Your task to perform on an android device: Is it going to rain tomorrow? Image 0: 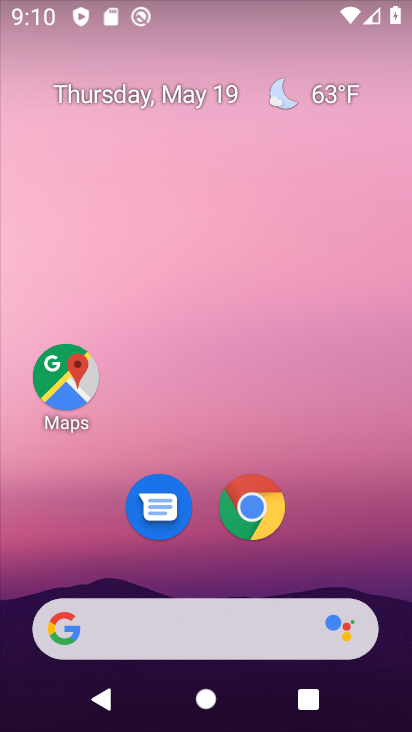
Step 0: click (243, 510)
Your task to perform on an android device: Is it going to rain tomorrow? Image 1: 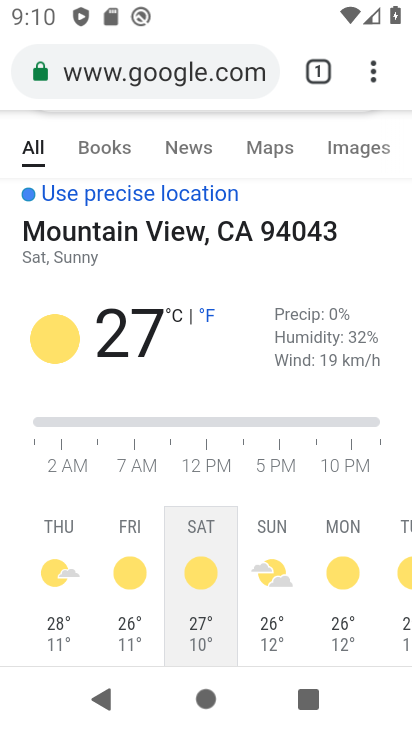
Step 1: click (250, 93)
Your task to perform on an android device: Is it going to rain tomorrow? Image 2: 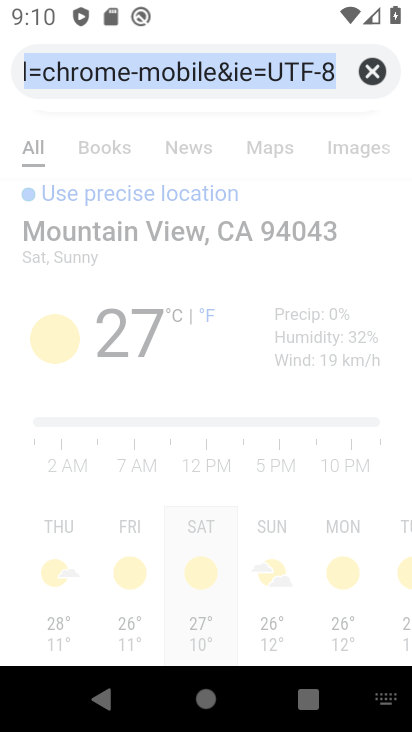
Step 2: type "Is it going to rain tomorrow?"
Your task to perform on an android device: Is it going to rain tomorrow? Image 3: 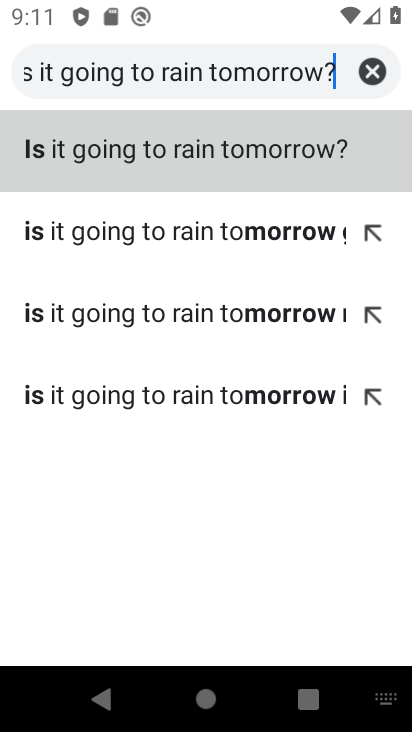
Step 3: click (226, 160)
Your task to perform on an android device: Is it going to rain tomorrow? Image 4: 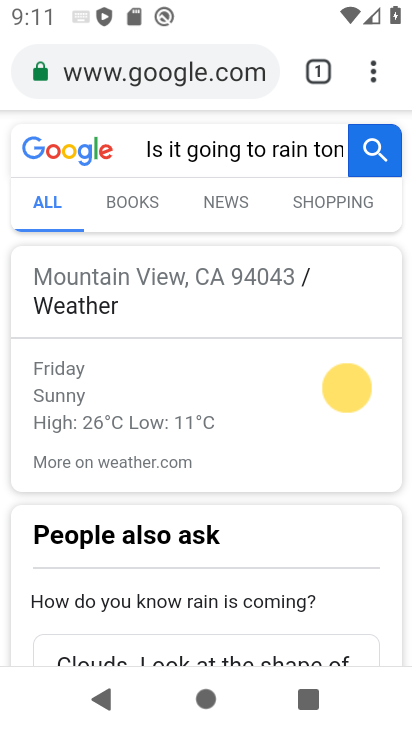
Step 4: task complete